Your task to perform on an android device: Open Google Image 0: 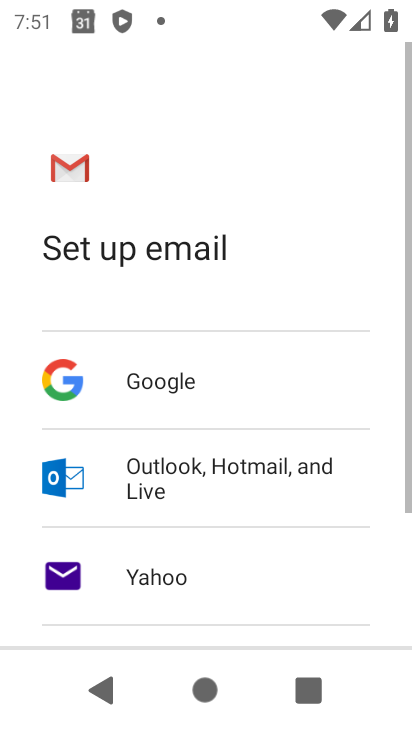
Step 0: drag from (292, 464) to (347, 161)
Your task to perform on an android device: Open Google Image 1: 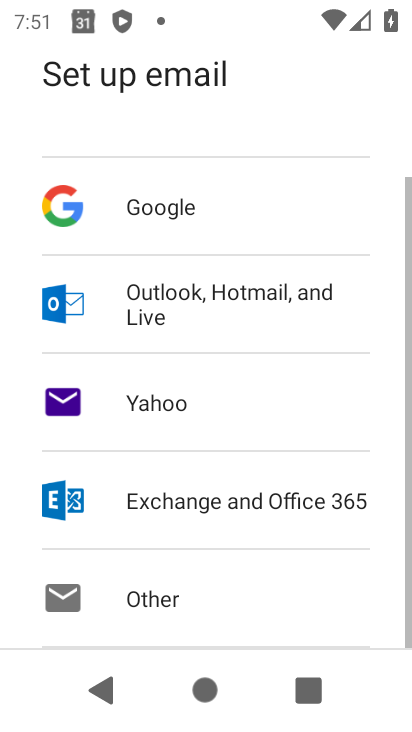
Step 1: press home button
Your task to perform on an android device: Open Google Image 2: 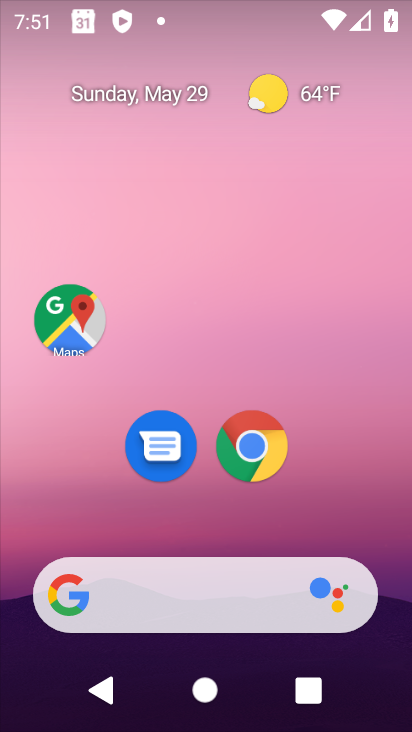
Step 2: drag from (177, 514) to (220, 117)
Your task to perform on an android device: Open Google Image 3: 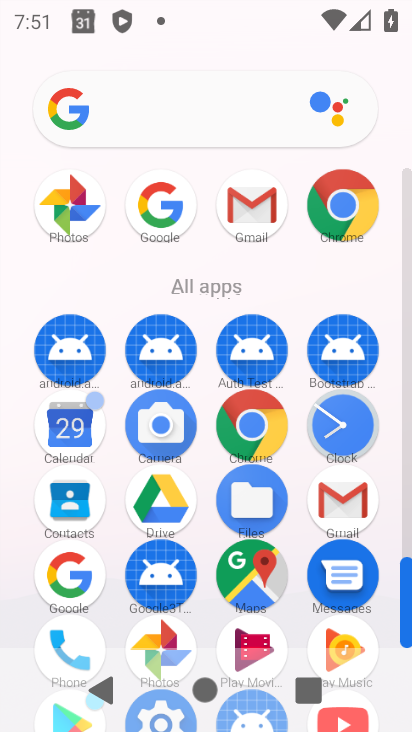
Step 3: click (53, 580)
Your task to perform on an android device: Open Google Image 4: 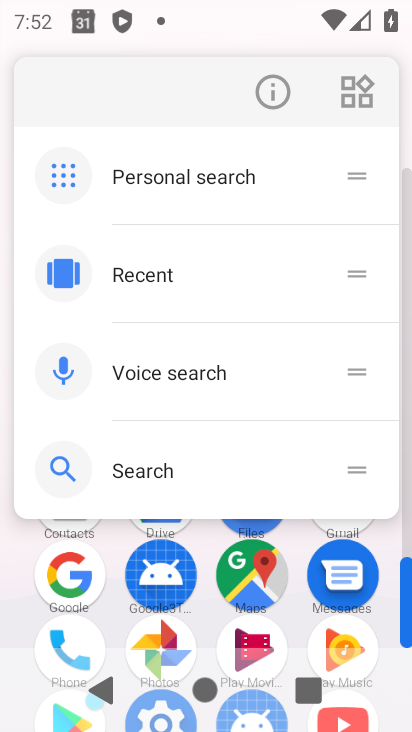
Step 4: click (269, 82)
Your task to perform on an android device: Open Google Image 5: 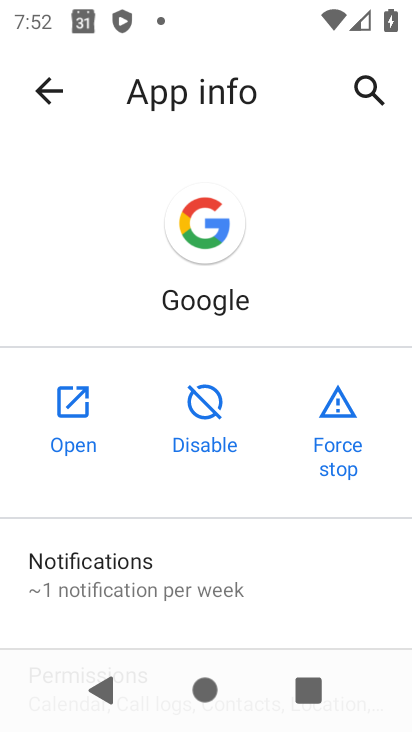
Step 5: click (28, 409)
Your task to perform on an android device: Open Google Image 6: 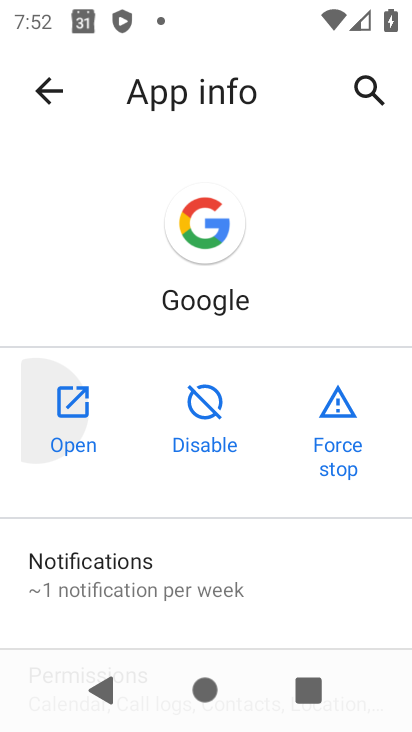
Step 6: click (66, 409)
Your task to perform on an android device: Open Google Image 7: 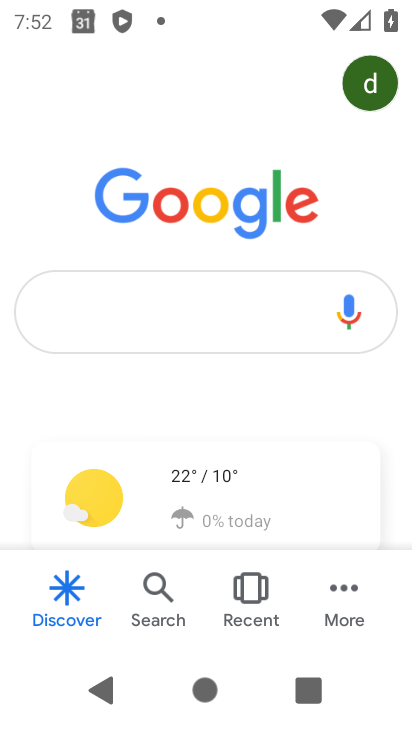
Step 7: task complete